Your task to perform on an android device: toggle wifi Image 0: 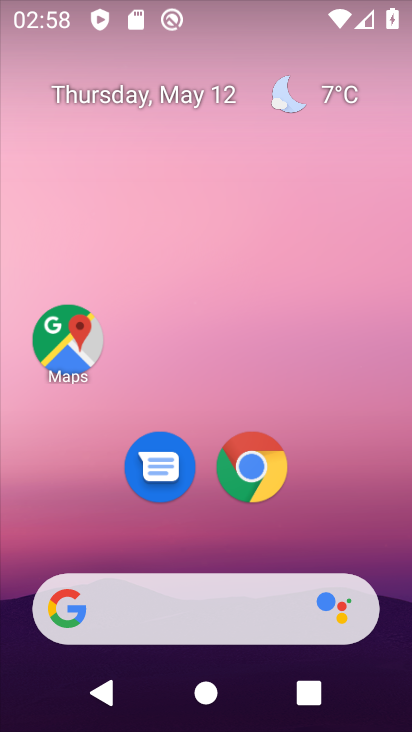
Step 0: drag from (273, 8) to (286, 414)
Your task to perform on an android device: toggle wifi Image 1: 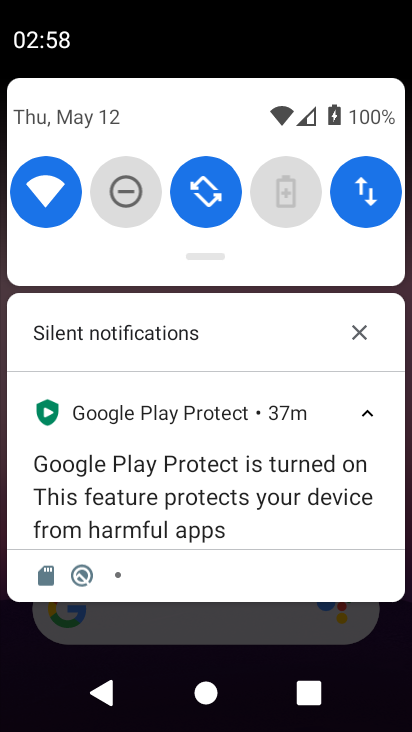
Step 1: click (55, 190)
Your task to perform on an android device: toggle wifi Image 2: 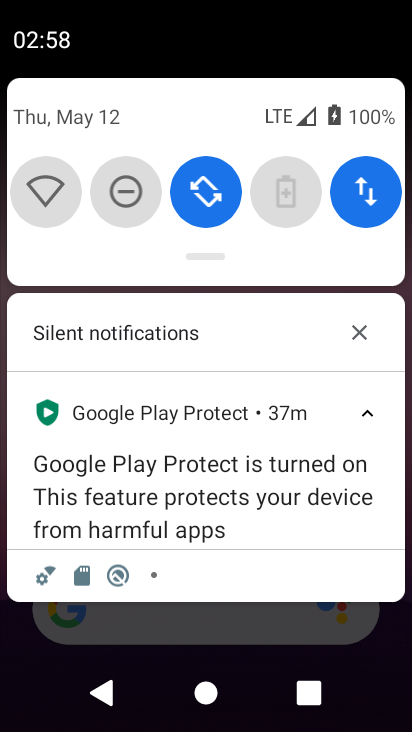
Step 2: task complete